Your task to perform on an android device: Go to privacy settings Image 0: 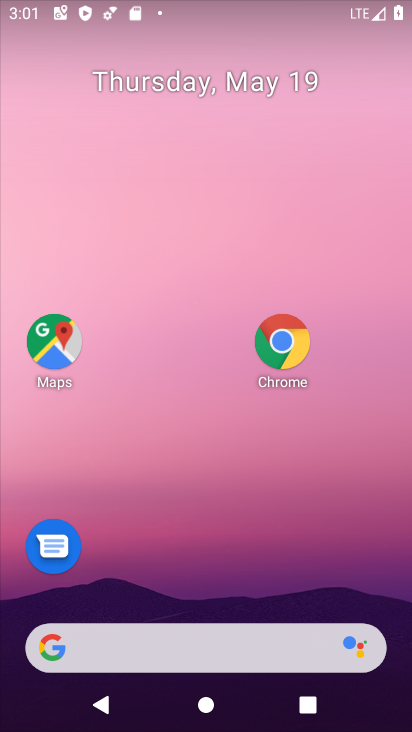
Step 0: press home button
Your task to perform on an android device: Go to privacy settings Image 1: 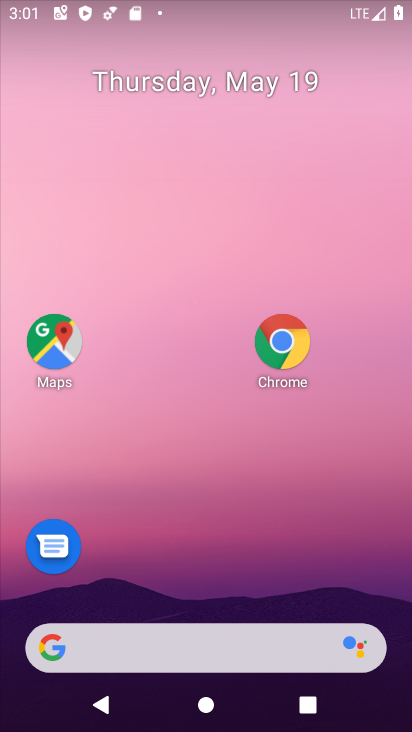
Step 1: drag from (159, 650) to (243, 182)
Your task to perform on an android device: Go to privacy settings Image 2: 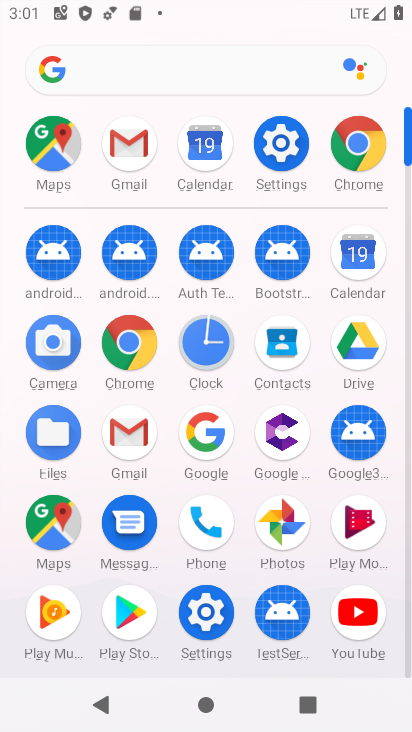
Step 2: click (281, 147)
Your task to perform on an android device: Go to privacy settings Image 3: 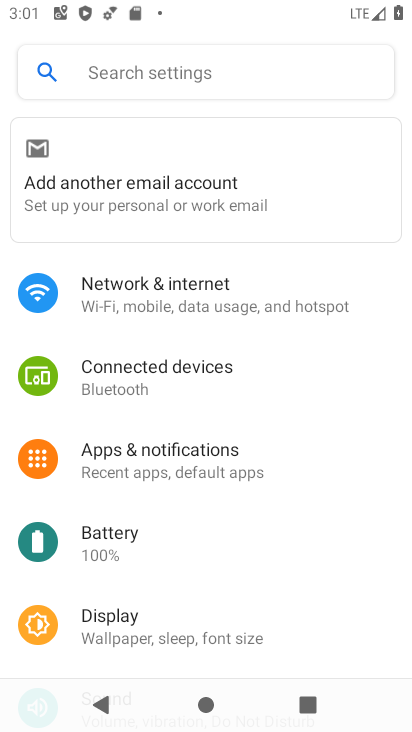
Step 3: drag from (244, 533) to (301, 123)
Your task to perform on an android device: Go to privacy settings Image 4: 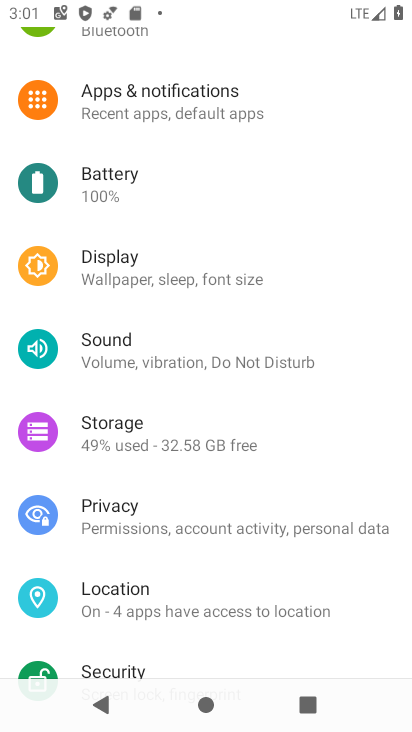
Step 4: click (115, 515)
Your task to perform on an android device: Go to privacy settings Image 5: 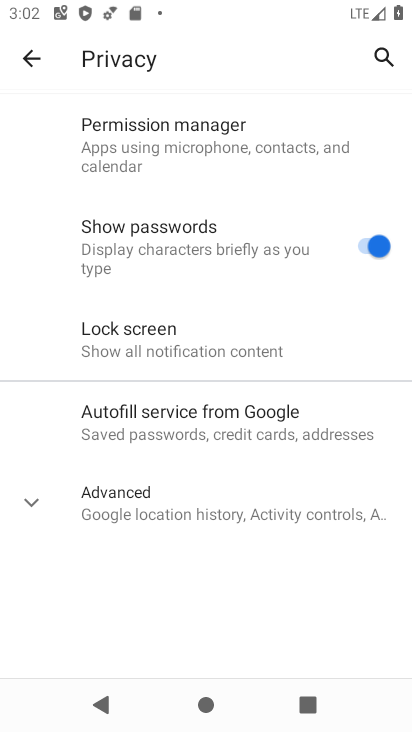
Step 5: task complete